Your task to perform on an android device: Search for sushi restaurants on Maps Image 0: 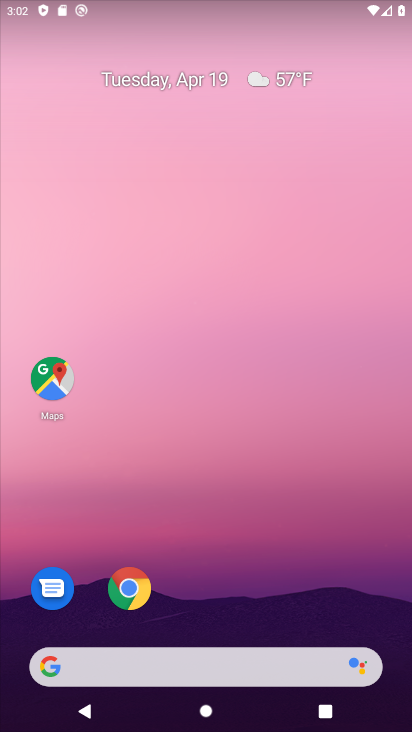
Step 0: drag from (221, 620) to (269, 216)
Your task to perform on an android device: Search for sushi restaurants on Maps Image 1: 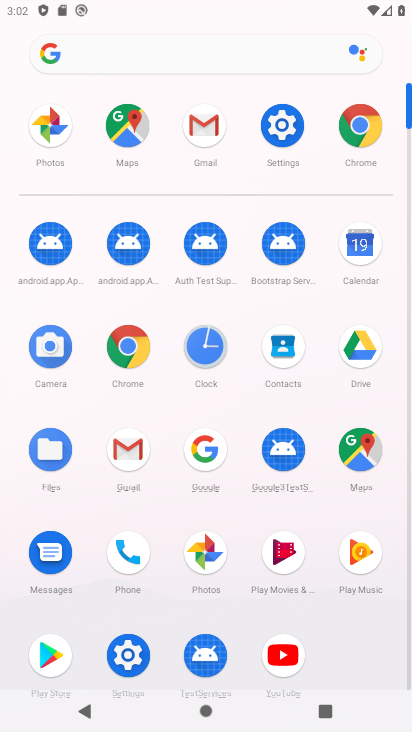
Step 1: click (378, 452)
Your task to perform on an android device: Search for sushi restaurants on Maps Image 2: 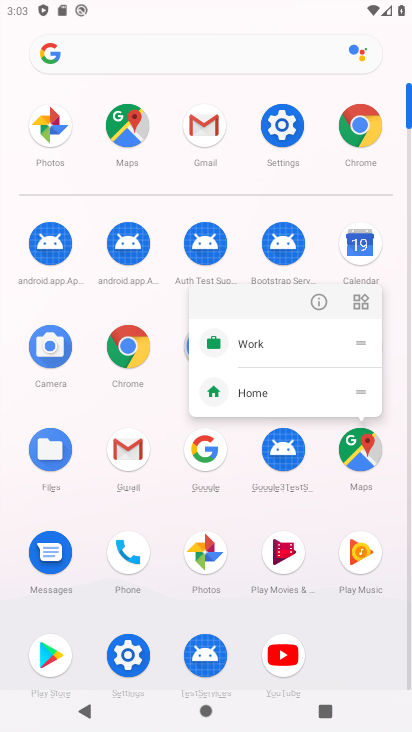
Step 2: click (321, 300)
Your task to perform on an android device: Search for sushi restaurants on Maps Image 3: 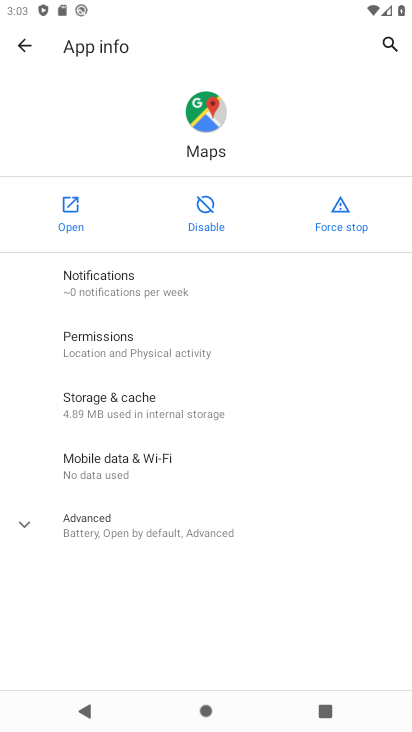
Step 3: click (78, 206)
Your task to perform on an android device: Search for sushi restaurants on Maps Image 4: 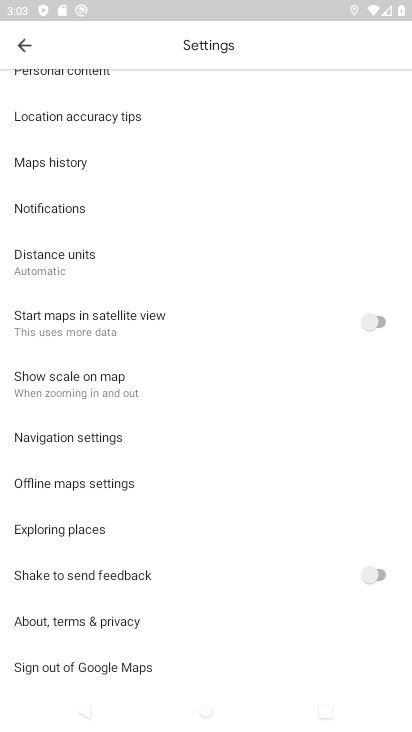
Step 4: drag from (157, 160) to (235, 654)
Your task to perform on an android device: Search for sushi restaurants on Maps Image 5: 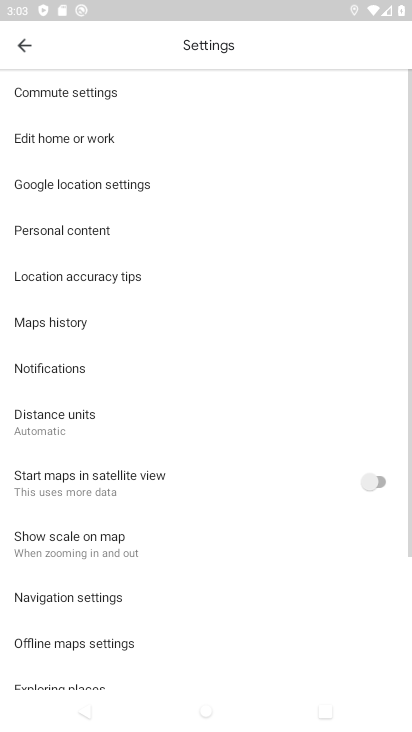
Step 5: click (19, 48)
Your task to perform on an android device: Search for sushi restaurants on Maps Image 6: 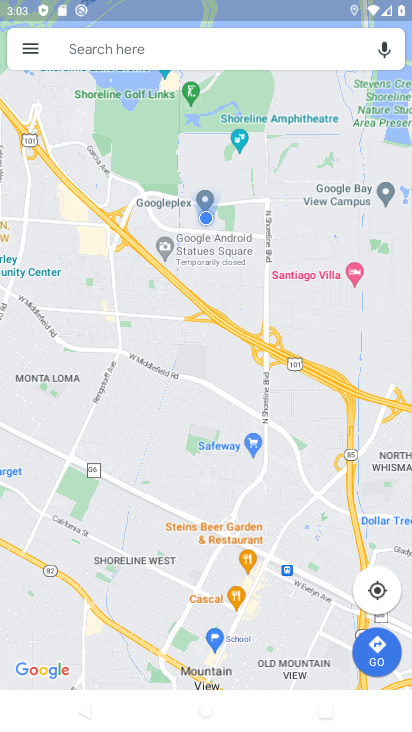
Step 6: click (188, 52)
Your task to perform on an android device: Search for sushi restaurants on Maps Image 7: 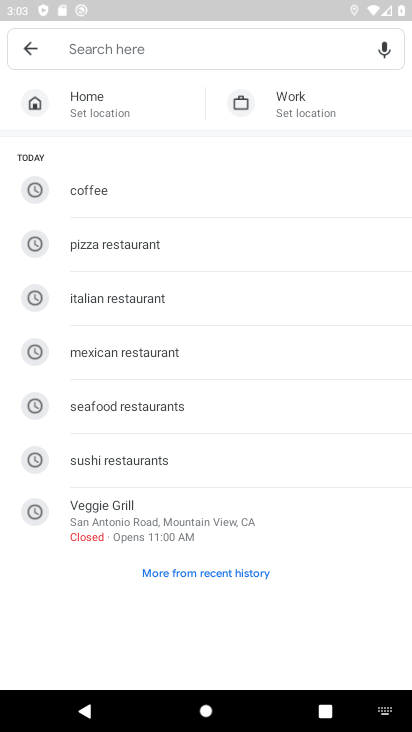
Step 7: click (151, 456)
Your task to perform on an android device: Search for sushi restaurants on Maps Image 8: 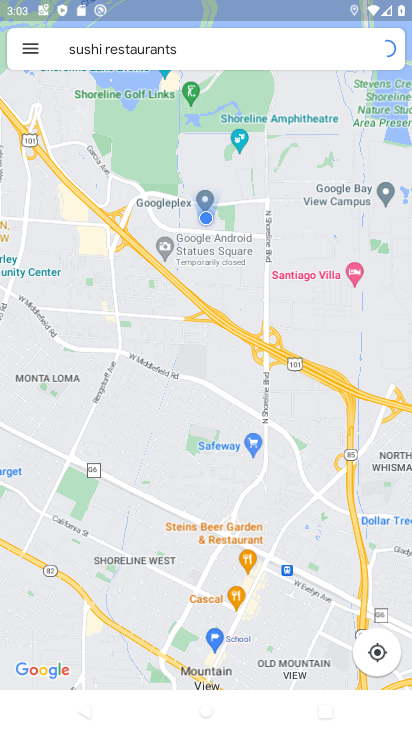
Step 8: task complete